Your task to perform on an android device: allow cookies in the chrome app Image 0: 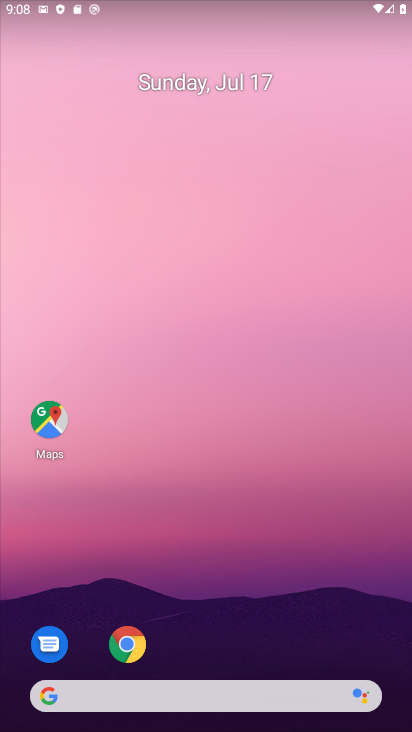
Step 0: drag from (166, 669) to (301, 36)
Your task to perform on an android device: allow cookies in the chrome app Image 1: 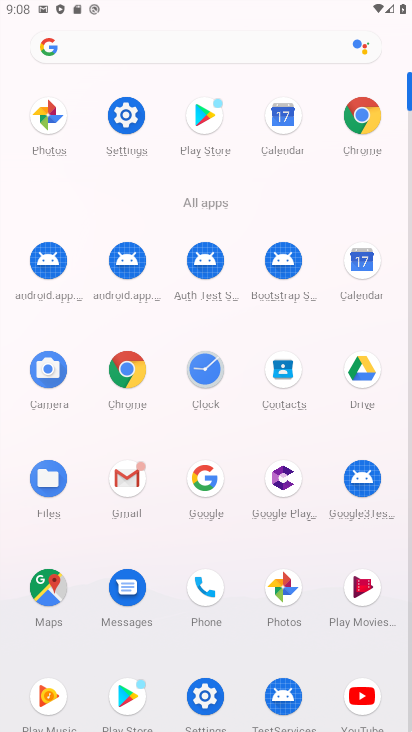
Step 1: click (123, 397)
Your task to perform on an android device: allow cookies in the chrome app Image 2: 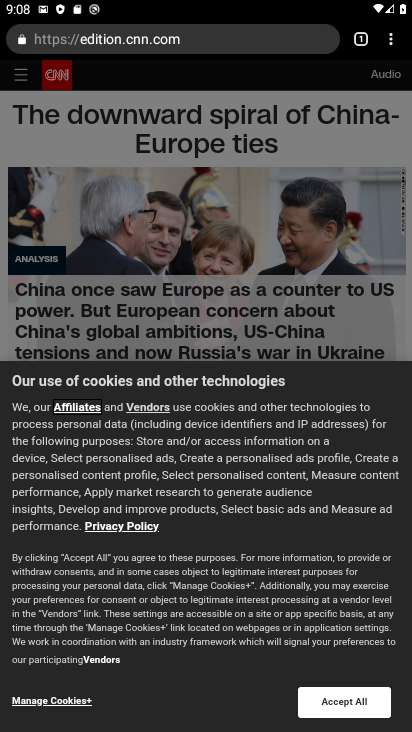
Step 2: click (381, 41)
Your task to perform on an android device: allow cookies in the chrome app Image 3: 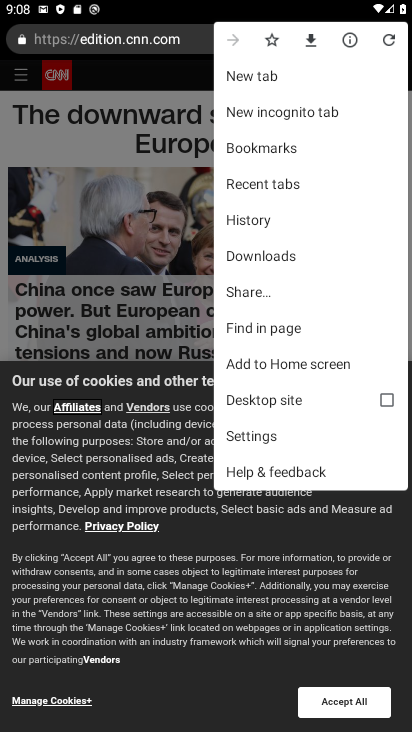
Step 3: click (248, 424)
Your task to perform on an android device: allow cookies in the chrome app Image 4: 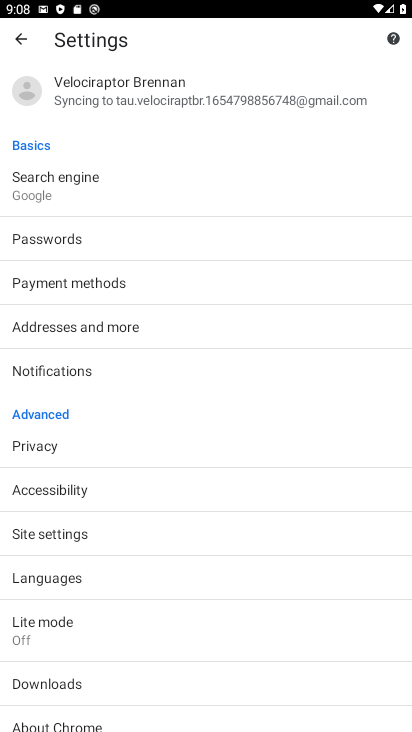
Step 4: click (52, 546)
Your task to perform on an android device: allow cookies in the chrome app Image 5: 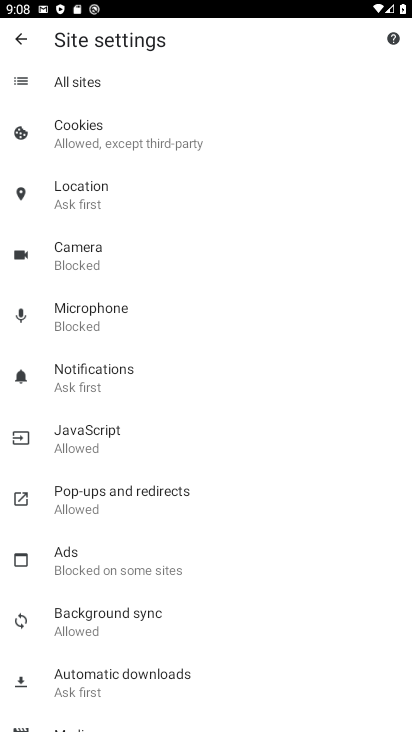
Step 5: click (71, 116)
Your task to perform on an android device: allow cookies in the chrome app Image 6: 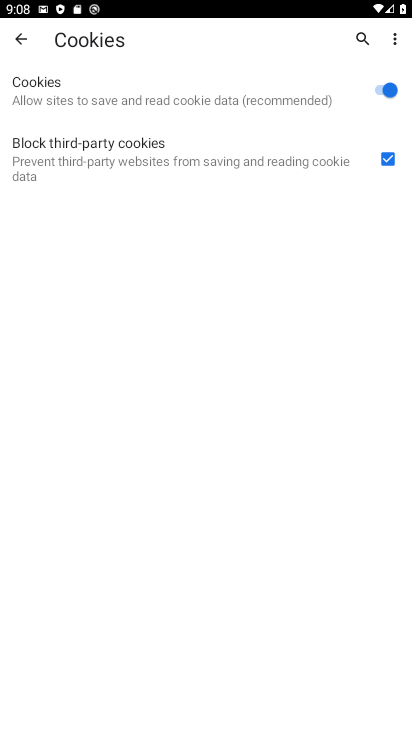
Step 6: task complete